Your task to perform on an android device: turn on notifications settings in the gmail app Image 0: 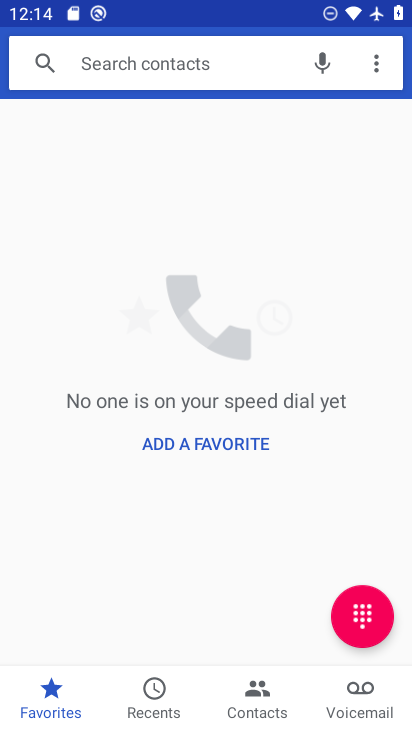
Step 0: press home button
Your task to perform on an android device: turn on notifications settings in the gmail app Image 1: 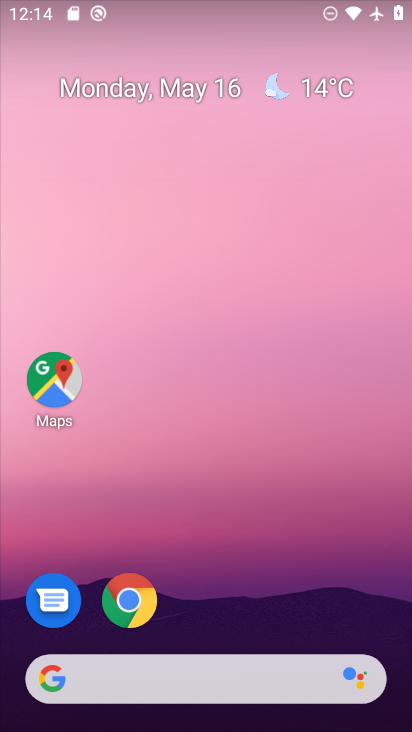
Step 1: drag from (397, 645) to (344, 113)
Your task to perform on an android device: turn on notifications settings in the gmail app Image 2: 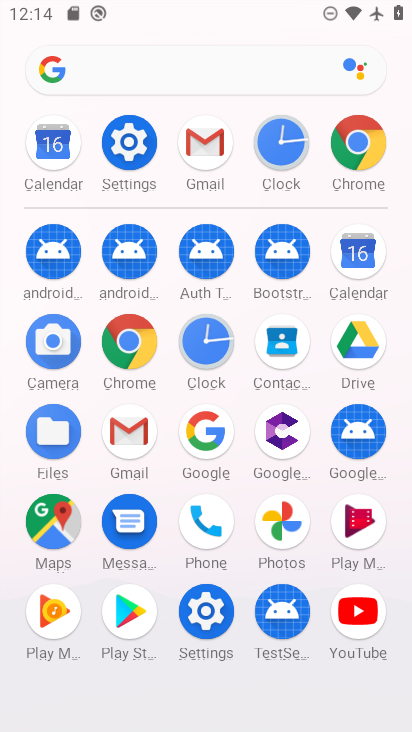
Step 2: click (128, 428)
Your task to perform on an android device: turn on notifications settings in the gmail app Image 3: 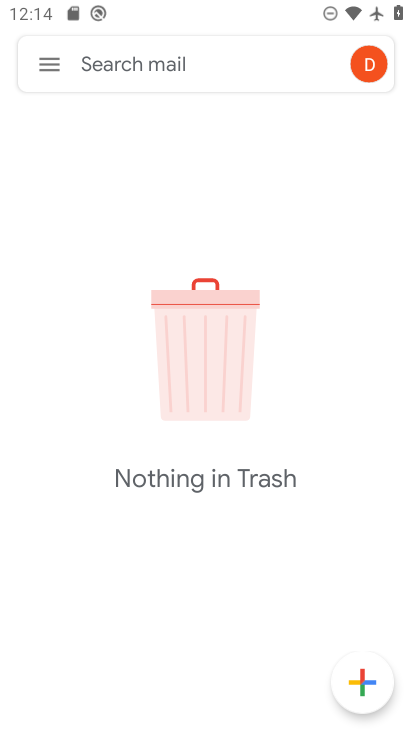
Step 3: click (46, 62)
Your task to perform on an android device: turn on notifications settings in the gmail app Image 4: 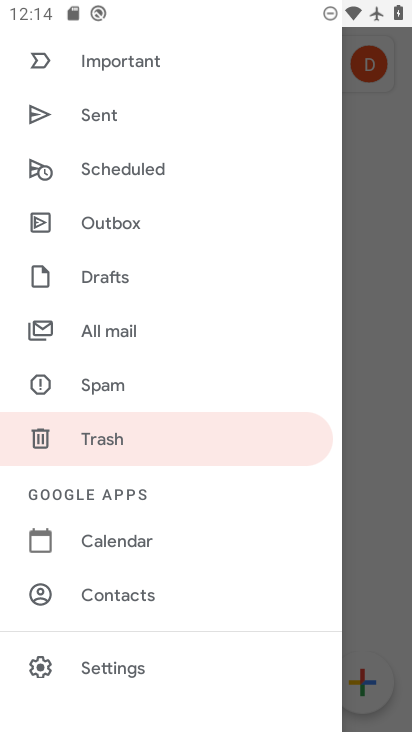
Step 4: click (128, 663)
Your task to perform on an android device: turn on notifications settings in the gmail app Image 5: 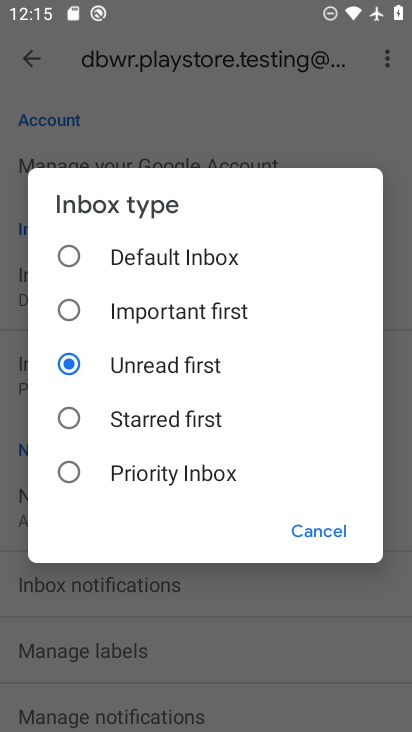
Step 5: click (319, 528)
Your task to perform on an android device: turn on notifications settings in the gmail app Image 6: 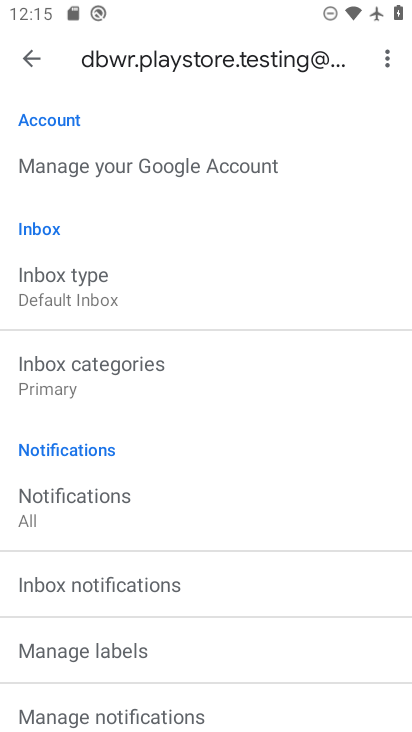
Step 6: drag from (270, 620) to (230, 215)
Your task to perform on an android device: turn on notifications settings in the gmail app Image 7: 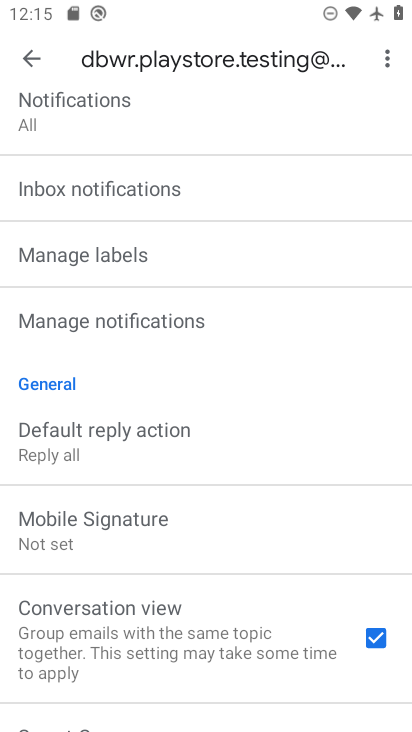
Step 7: click (97, 325)
Your task to perform on an android device: turn on notifications settings in the gmail app Image 8: 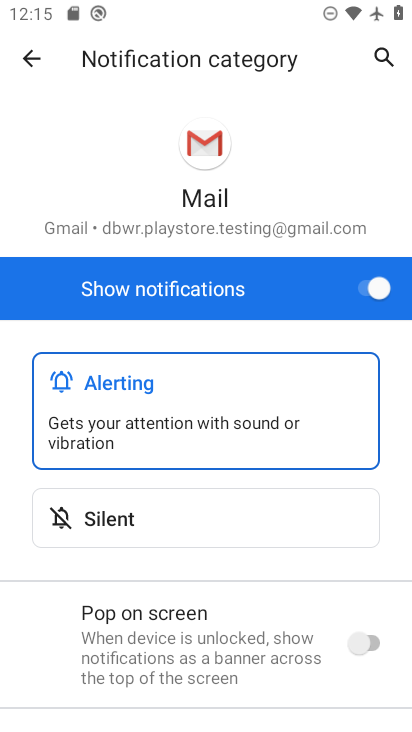
Step 8: task complete